Your task to perform on an android device: Open ESPN.com Image 0: 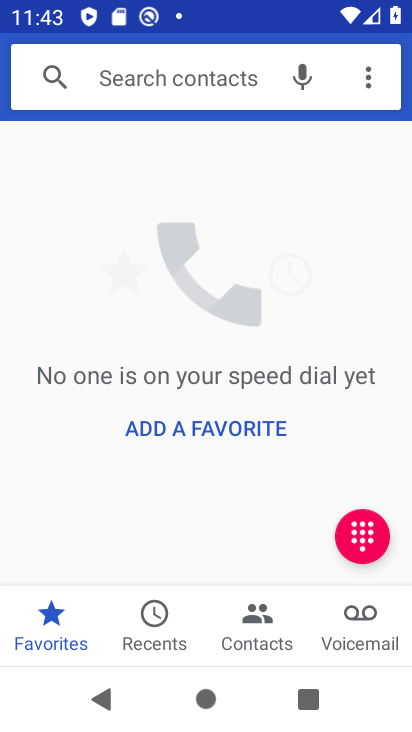
Step 0: press home button
Your task to perform on an android device: Open ESPN.com Image 1: 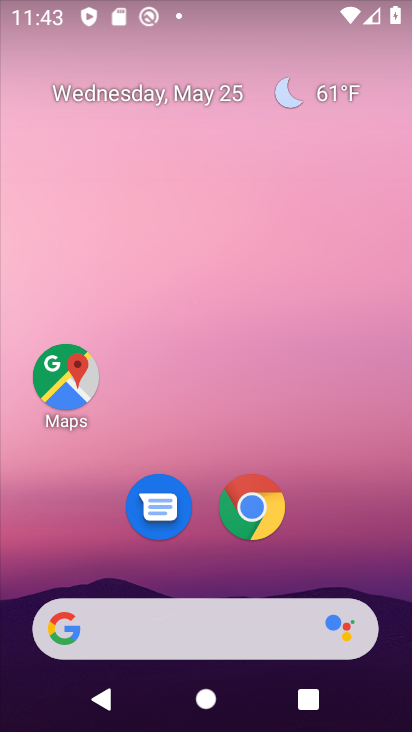
Step 1: click (247, 504)
Your task to perform on an android device: Open ESPN.com Image 2: 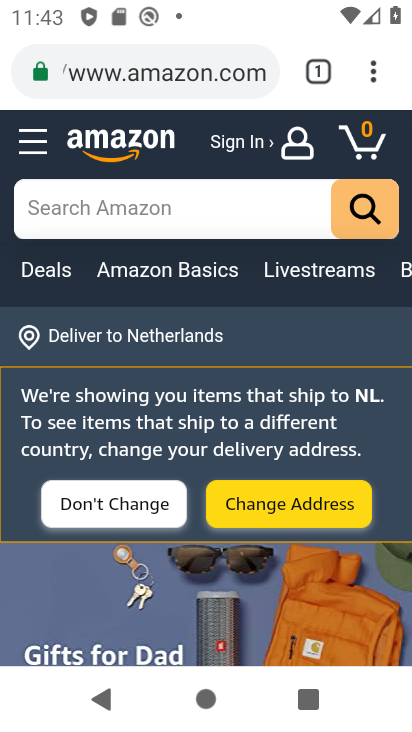
Step 2: click (207, 73)
Your task to perform on an android device: Open ESPN.com Image 3: 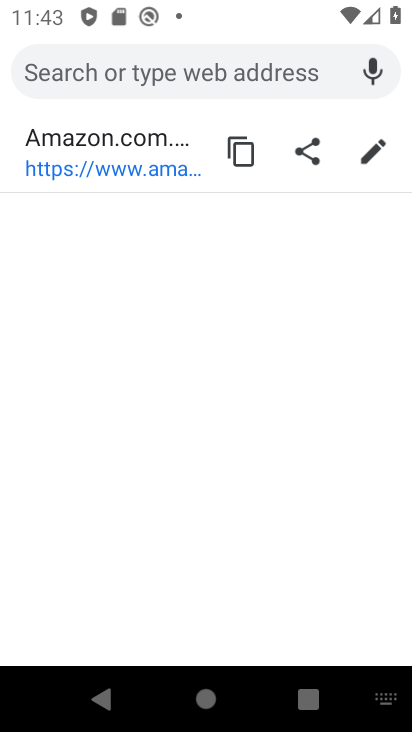
Step 3: type "espn.com"
Your task to perform on an android device: Open ESPN.com Image 4: 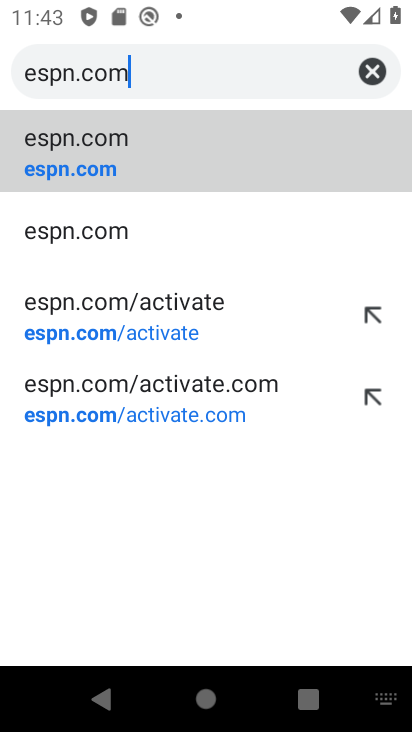
Step 4: click (155, 159)
Your task to perform on an android device: Open ESPN.com Image 5: 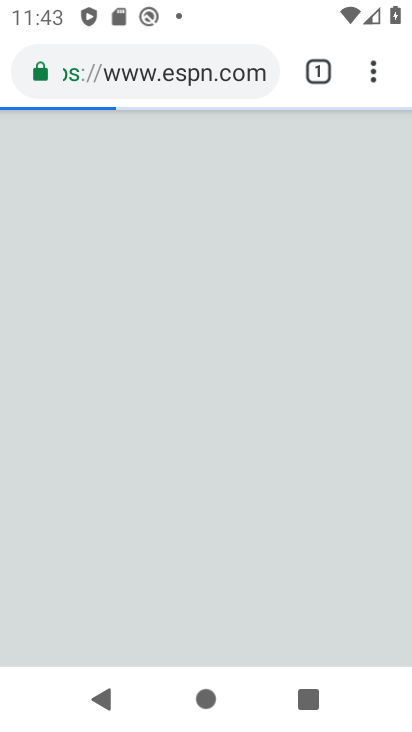
Step 5: task complete